Your task to perform on an android device: Go to internet settings Image 0: 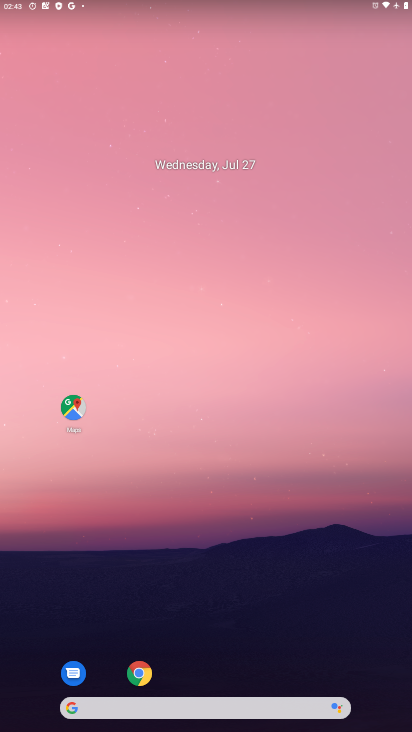
Step 0: drag from (219, 676) to (247, 14)
Your task to perform on an android device: Go to internet settings Image 1: 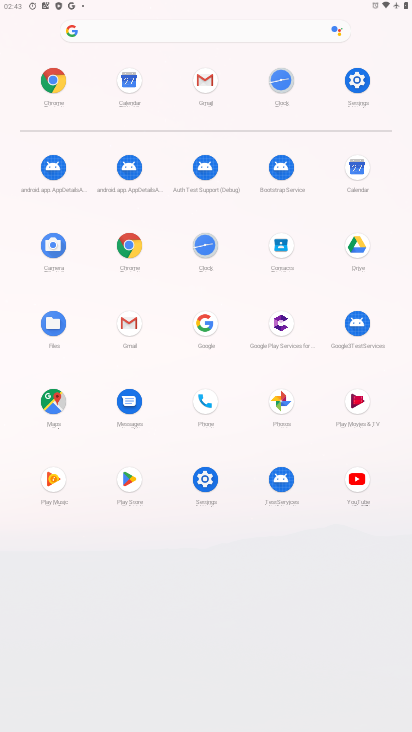
Step 1: click (355, 73)
Your task to perform on an android device: Go to internet settings Image 2: 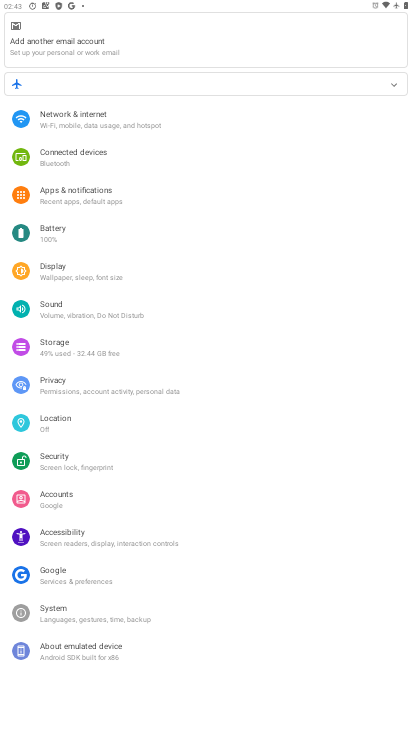
Step 2: click (75, 119)
Your task to perform on an android device: Go to internet settings Image 3: 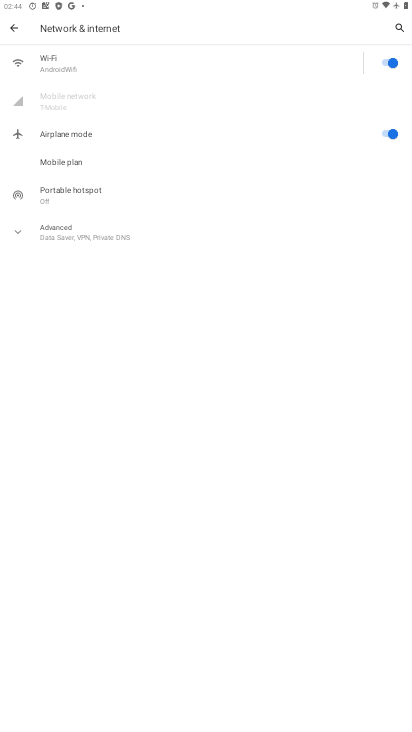
Step 3: click (7, 244)
Your task to perform on an android device: Go to internet settings Image 4: 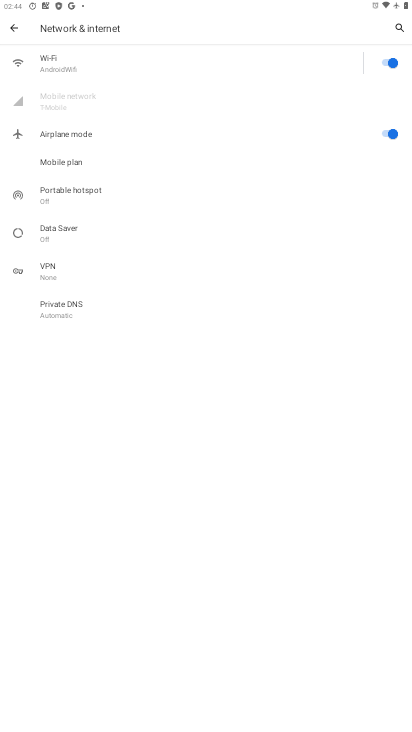
Step 4: task complete